Your task to perform on an android device: change your default location settings in chrome Image 0: 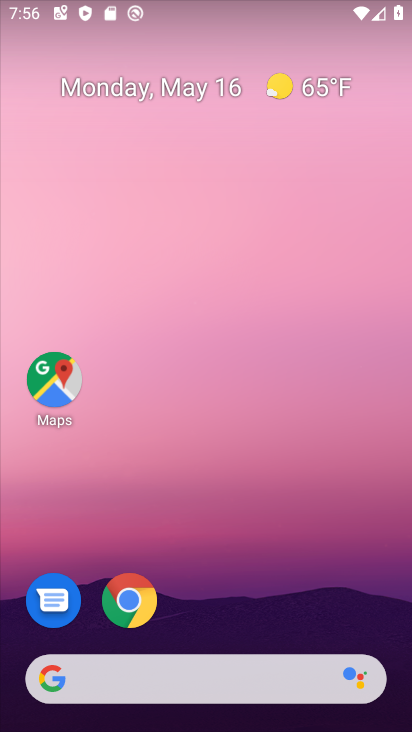
Step 0: drag from (213, 623) to (296, 112)
Your task to perform on an android device: change your default location settings in chrome Image 1: 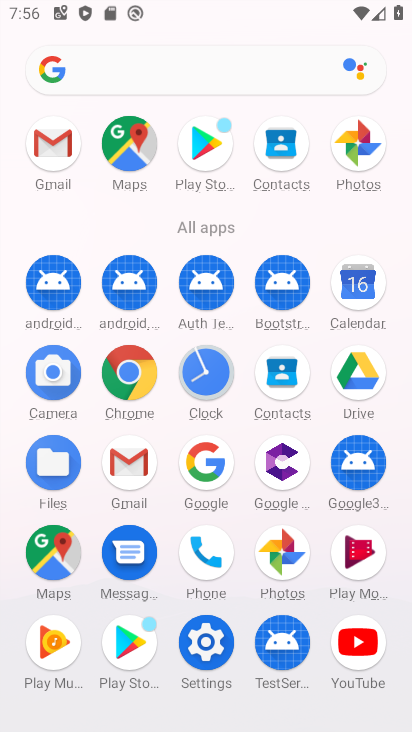
Step 1: click (132, 369)
Your task to perform on an android device: change your default location settings in chrome Image 2: 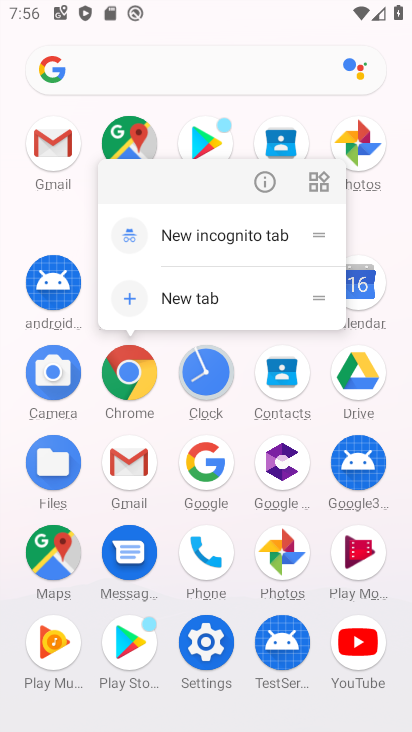
Step 2: click (254, 183)
Your task to perform on an android device: change your default location settings in chrome Image 3: 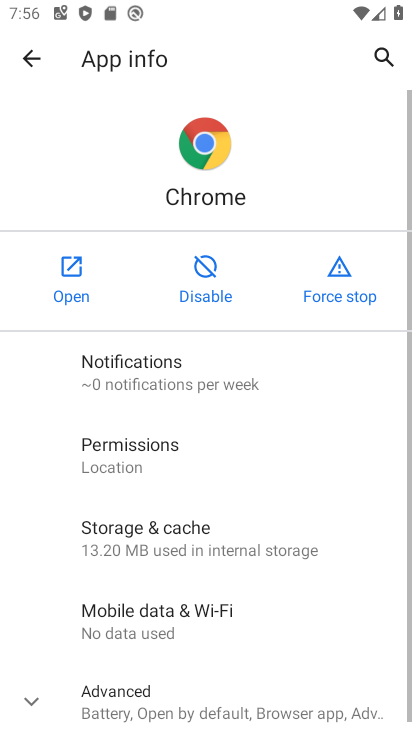
Step 3: click (65, 284)
Your task to perform on an android device: change your default location settings in chrome Image 4: 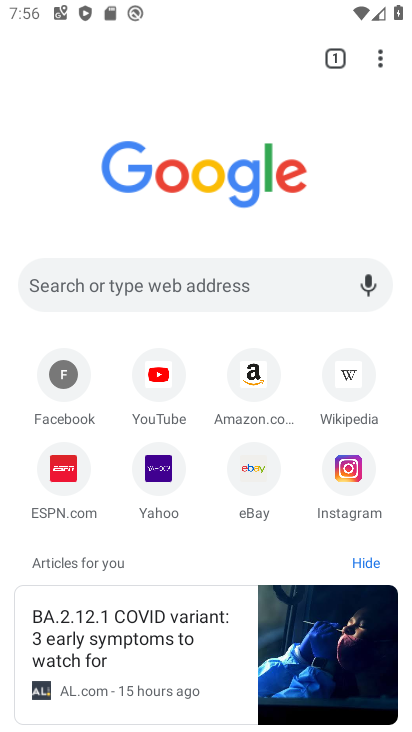
Step 4: drag from (205, 523) to (230, 178)
Your task to perform on an android device: change your default location settings in chrome Image 5: 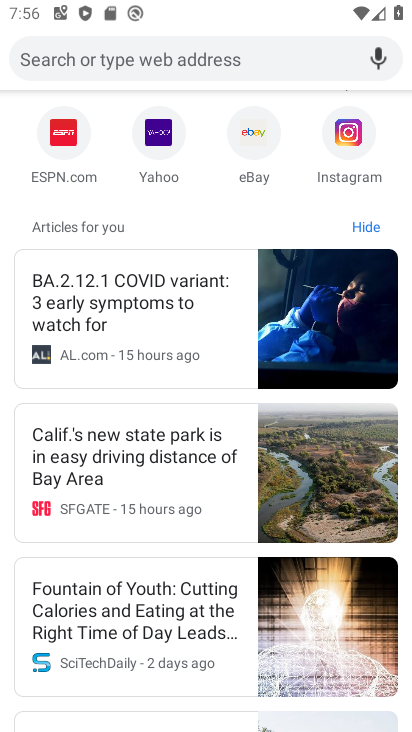
Step 5: drag from (206, 120) to (248, 705)
Your task to perform on an android device: change your default location settings in chrome Image 6: 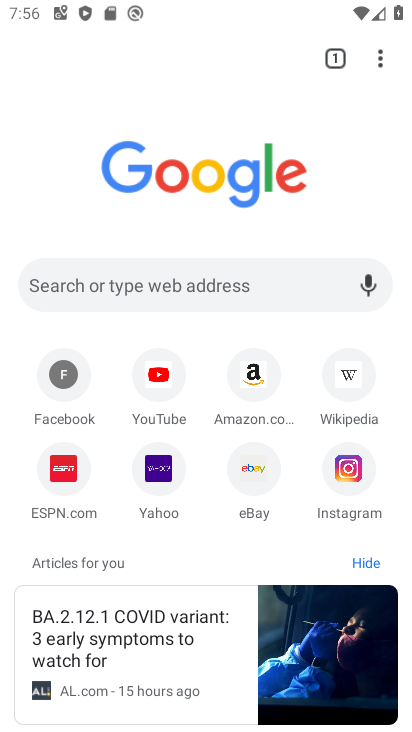
Step 6: drag from (226, 542) to (246, 247)
Your task to perform on an android device: change your default location settings in chrome Image 7: 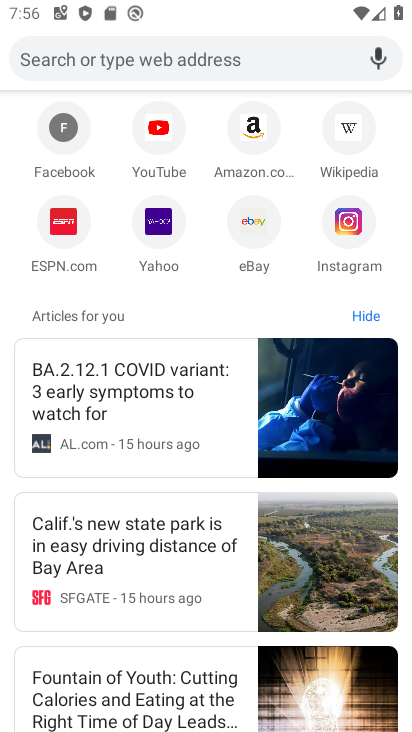
Step 7: drag from (245, 247) to (254, 581)
Your task to perform on an android device: change your default location settings in chrome Image 8: 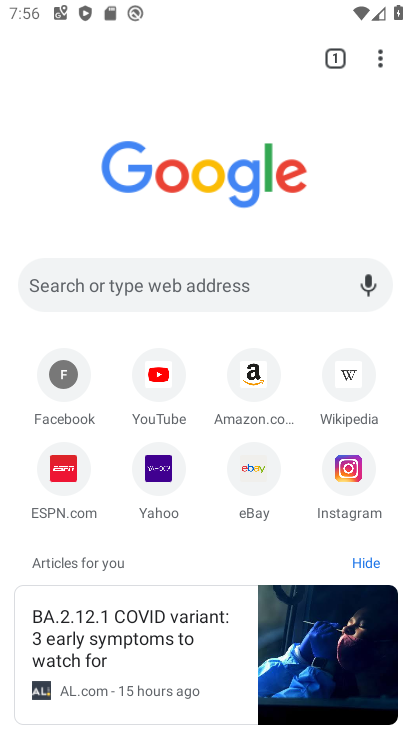
Step 8: click (388, 57)
Your task to perform on an android device: change your default location settings in chrome Image 9: 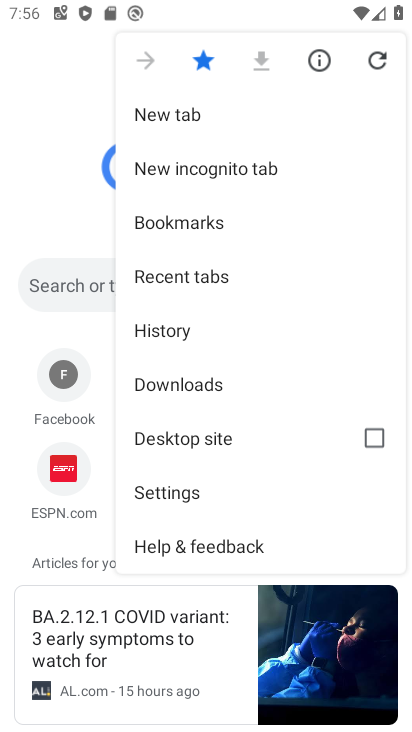
Step 9: click (193, 487)
Your task to perform on an android device: change your default location settings in chrome Image 10: 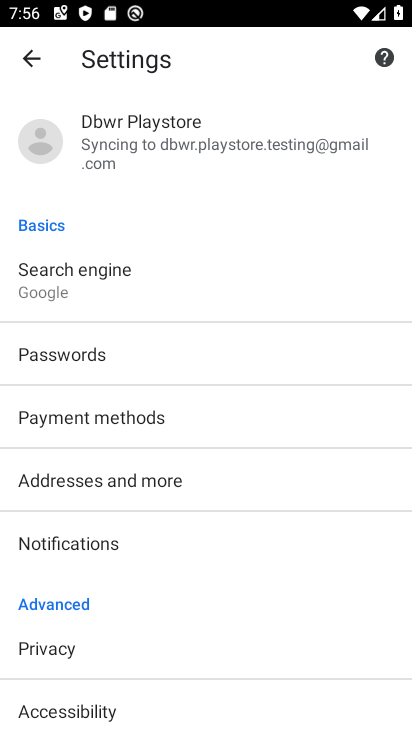
Step 10: drag from (213, 626) to (292, 171)
Your task to perform on an android device: change your default location settings in chrome Image 11: 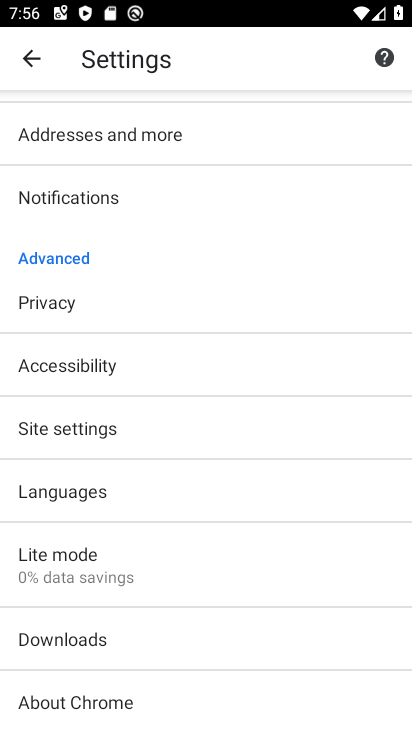
Step 11: drag from (214, 589) to (231, 277)
Your task to perform on an android device: change your default location settings in chrome Image 12: 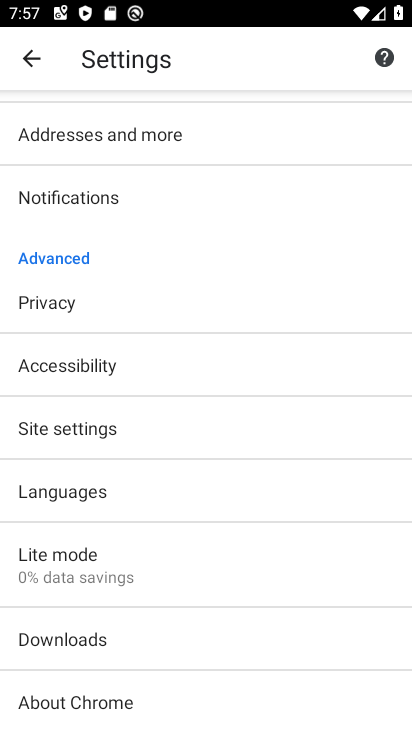
Step 12: click (97, 421)
Your task to perform on an android device: change your default location settings in chrome Image 13: 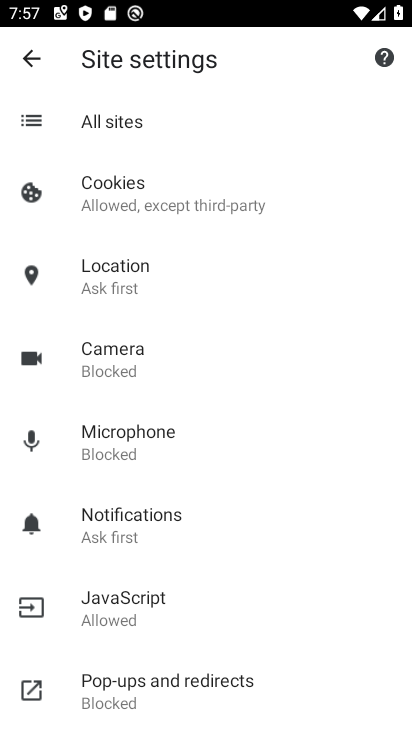
Step 13: click (177, 285)
Your task to perform on an android device: change your default location settings in chrome Image 14: 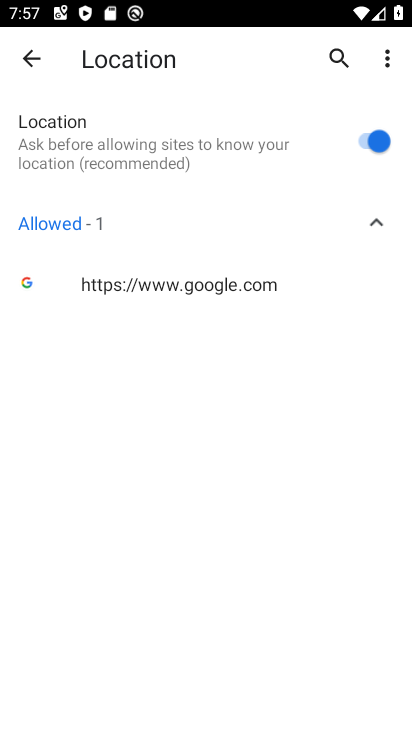
Step 14: click (373, 133)
Your task to perform on an android device: change your default location settings in chrome Image 15: 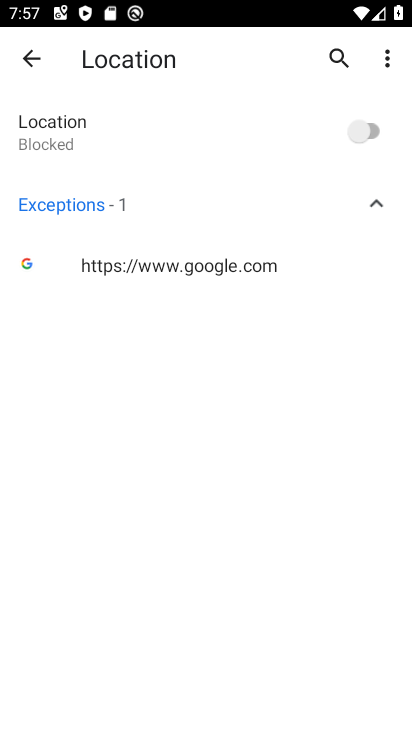
Step 15: task complete